Your task to perform on an android device: turn on data saver in the chrome app Image 0: 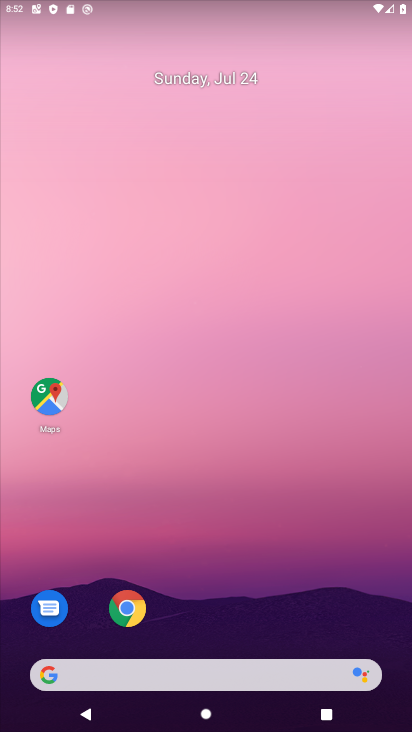
Step 0: drag from (227, 642) to (301, 10)
Your task to perform on an android device: turn on data saver in the chrome app Image 1: 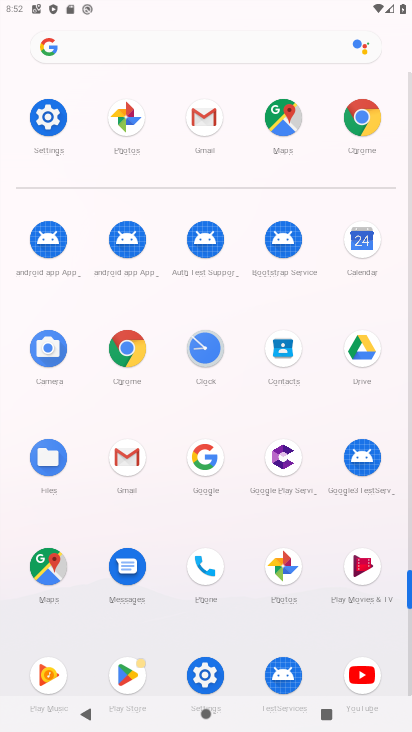
Step 1: click (139, 340)
Your task to perform on an android device: turn on data saver in the chrome app Image 2: 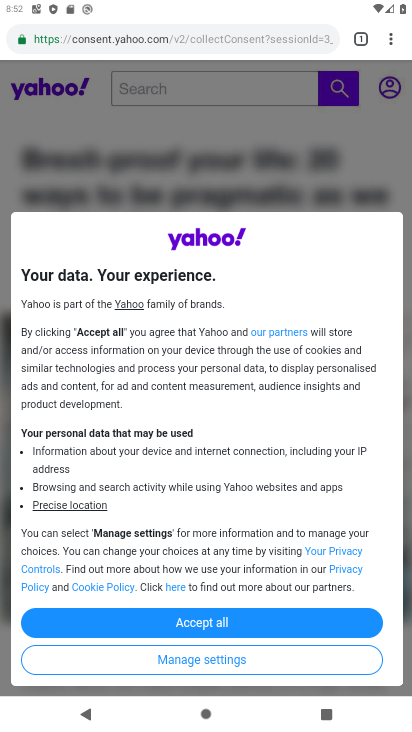
Step 2: click (383, 33)
Your task to perform on an android device: turn on data saver in the chrome app Image 3: 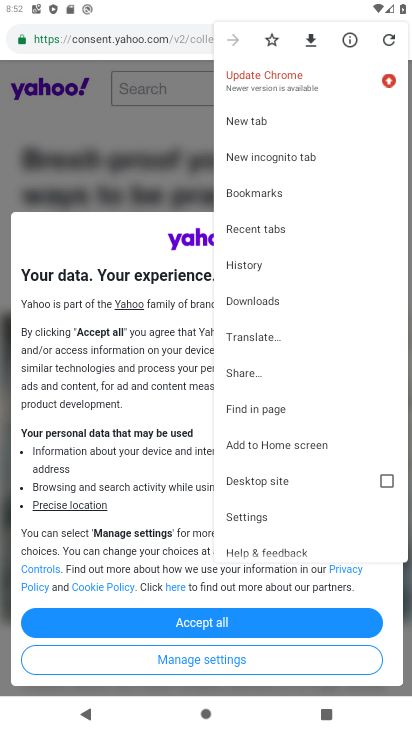
Step 3: click (261, 513)
Your task to perform on an android device: turn on data saver in the chrome app Image 4: 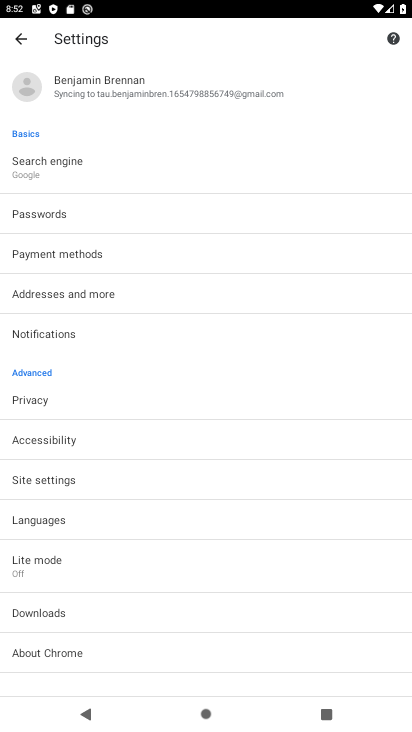
Step 4: click (70, 562)
Your task to perform on an android device: turn on data saver in the chrome app Image 5: 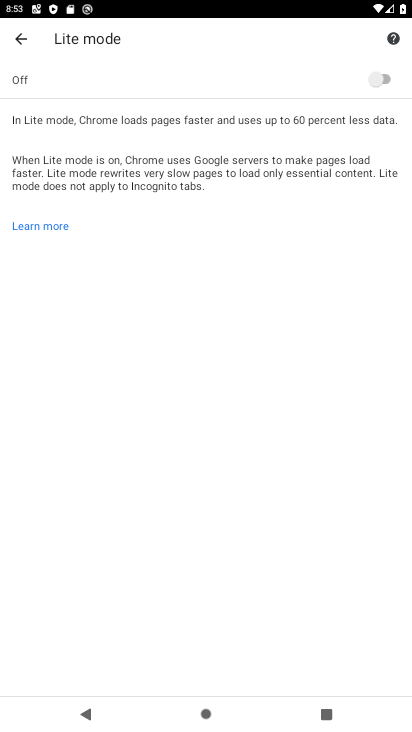
Step 5: click (397, 69)
Your task to perform on an android device: turn on data saver in the chrome app Image 6: 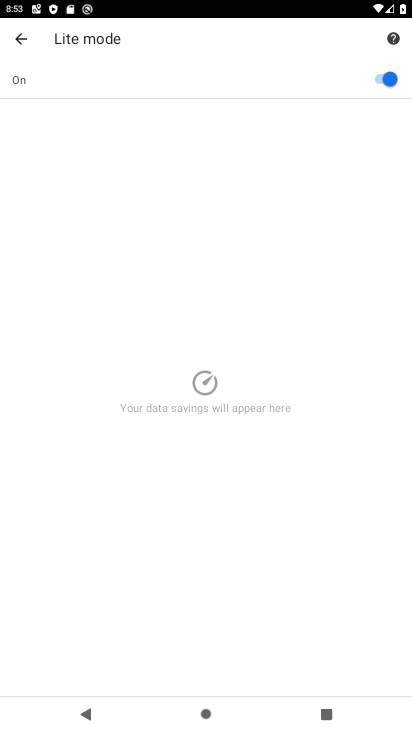
Step 6: task complete